Your task to perform on an android device: toggle data saver in the chrome app Image 0: 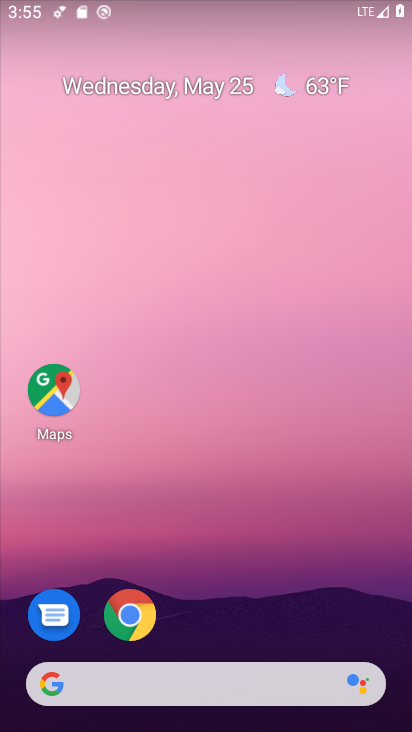
Step 0: click (129, 606)
Your task to perform on an android device: toggle data saver in the chrome app Image 1: 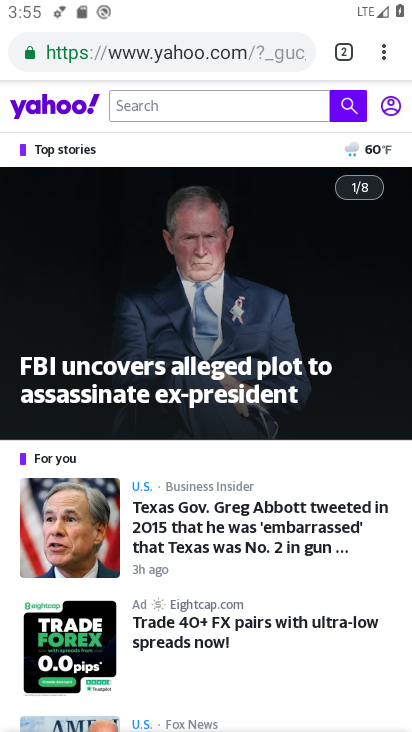
Step 1: click (386, 56)
Your task to perform on an android device: toggle data saver in the chrome app Image 2: 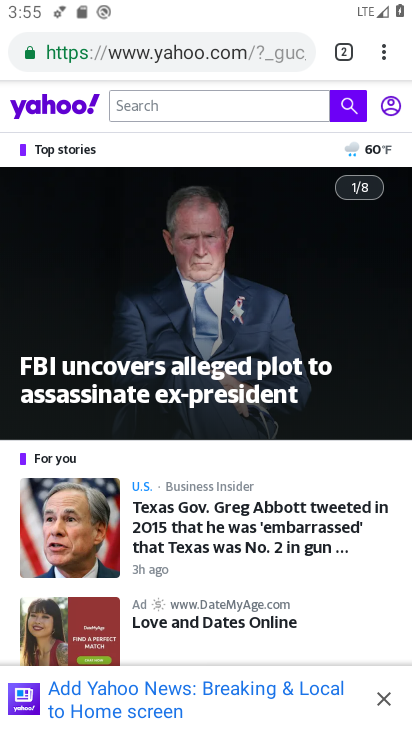
Step 2: click (383, 51)
Your task to perform on an android device: toggle data saver in the chrome app Image 3: 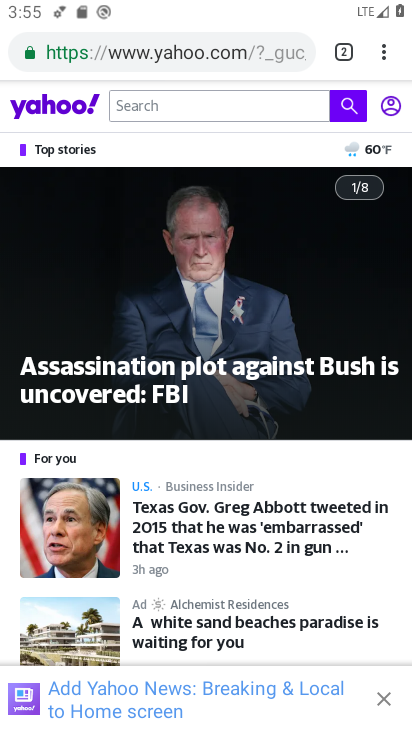
Step 3: click (377, 51)
Your task to perform on an android device: toggle data saver in the chrome app Image 4: 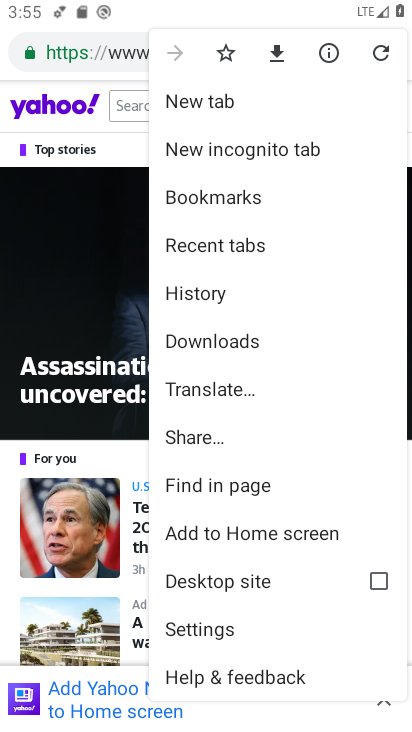
Step 4: click (258, 623)
Your task to perform on an android device: toggle data saver in the chrome app Image 5: 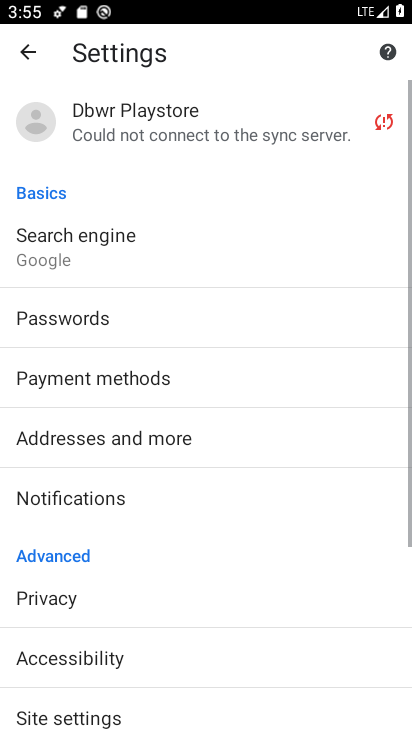
Step 5: drag from (204, 620) to (226, 188)
Your task to perform on an android device: toggle data saver in the chrome app Image 6: 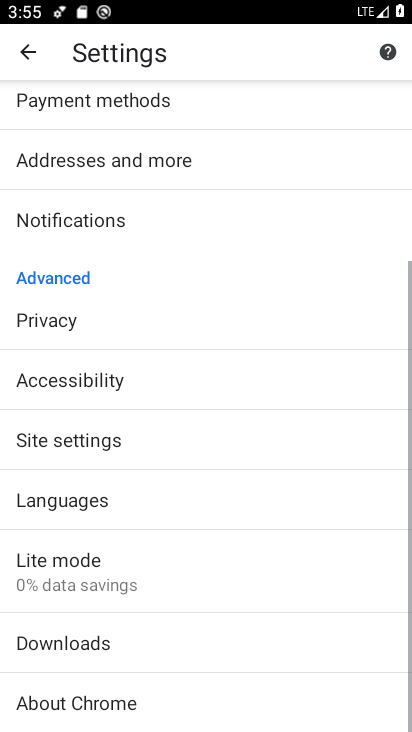
Step 6: click (139, 550)
Your task to perform on an android device: toggle data saver in the chrome app Image 7: 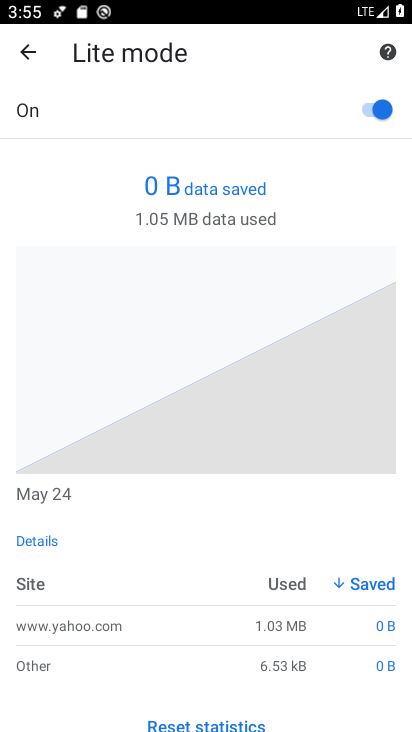
Step 7: click (371, 115)
Your task to perform on an android device: toggle data saver in the chrome app Image 8: 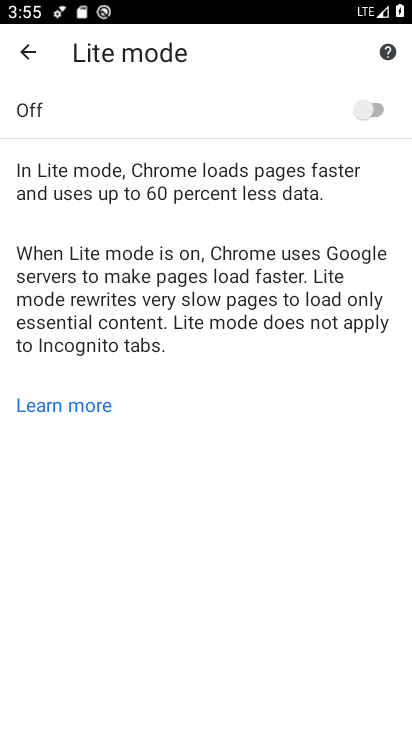
Step 8: task complete